Your task to perform on an android device: Check the news Image 0: 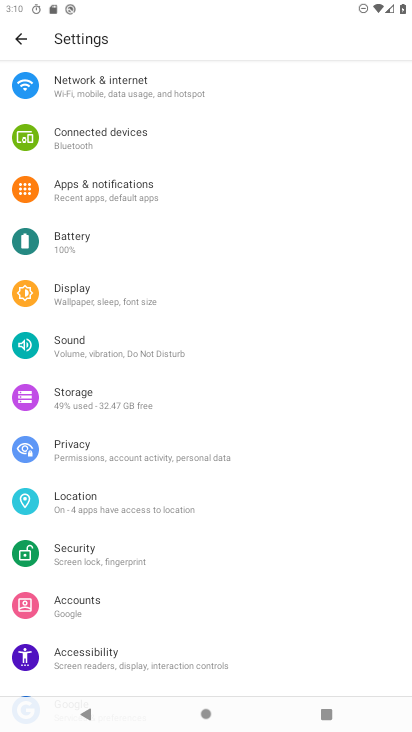
Step 0: press home button
Your task to perform on an android device: Check the news Image 1: 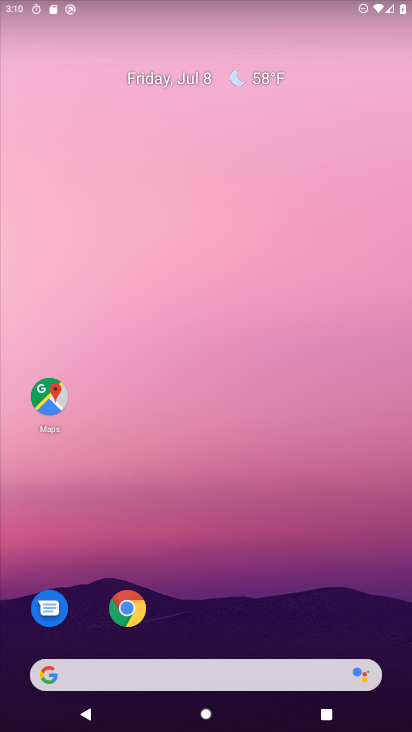
Step 1: task complete